Your task to perform on an android device: What is the news today? Image 0: 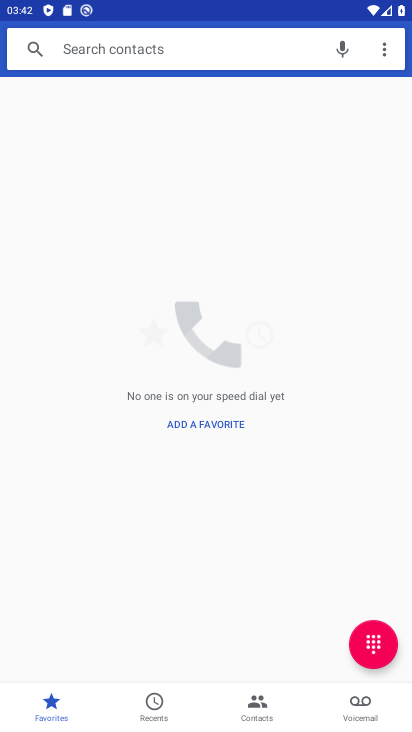
Step 0: press home button
Your task to perform on an android device: What is the news today? Image 1: 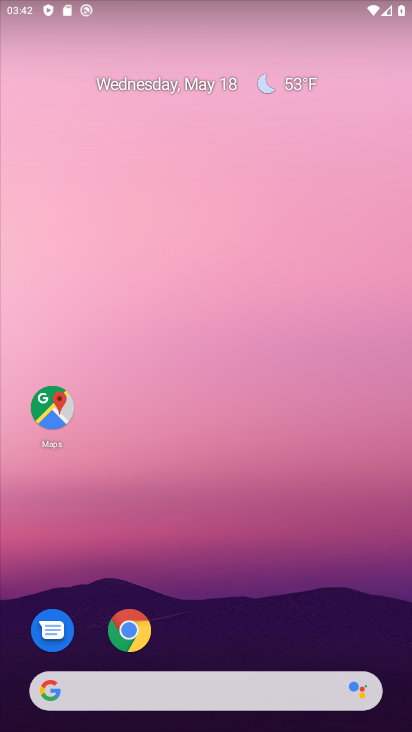
Step 1: task complete